Your task to perform on an android device: turn vacation reply on in the gmail app Image 0: 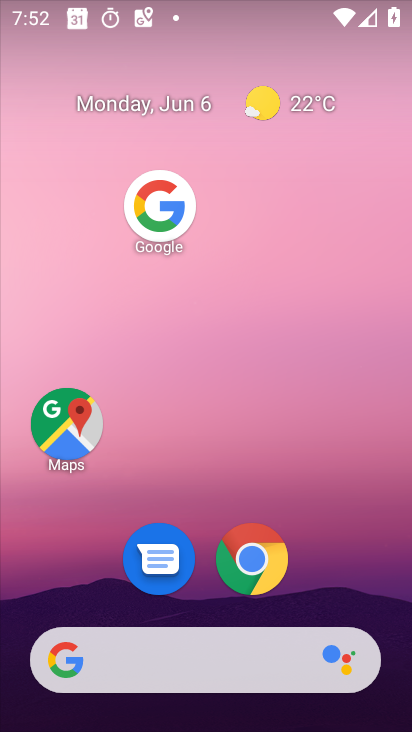
Step 0: drag from (199, 598) to (280, 228)
Your task to perform on an android device: turn vacation reply on in the gmail app Image 1: 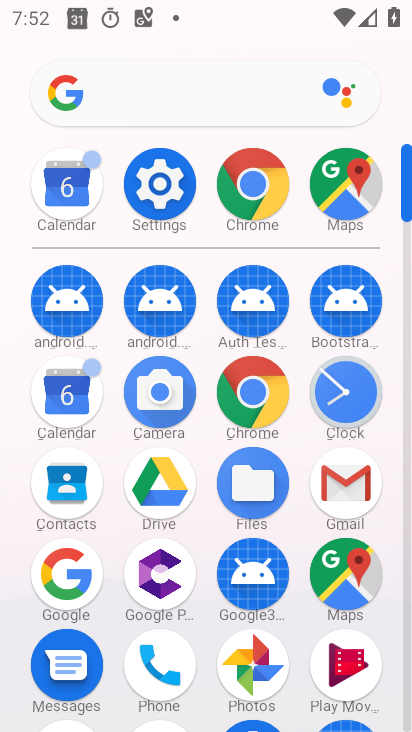
Step 1: click (341, 478)
Your task to perform on an android device: turn vacation reply on in the gmail app Image 2: 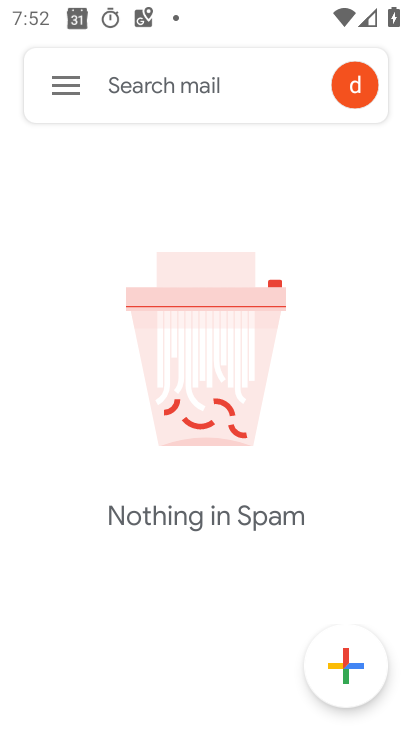
Step 2: click (59, 85)
Your task to perform on an android device: turn vacation reply on in the gmail app Image 3: 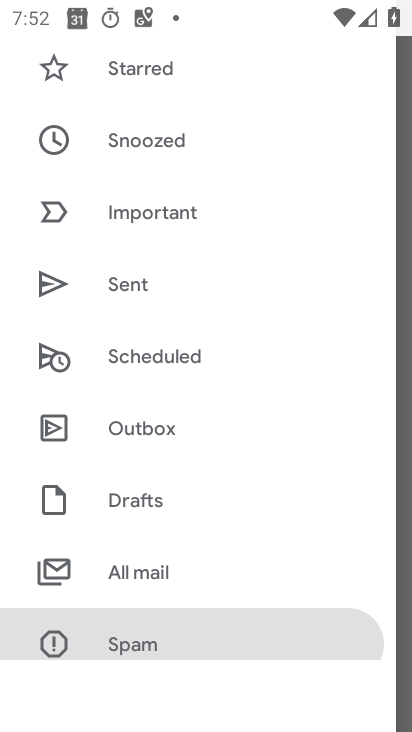
Step 3: drag from (184, 591) to (180, 93)
Your task to perform on an android device: turn vacation reply on in the gmail app Image 4: 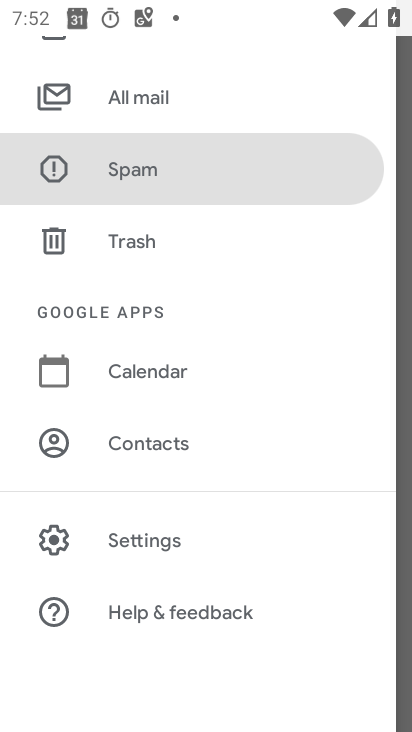
Step 4: click (132, 542)
Your task to perform on an android device: turn vacation reply on in the gmail app Image 5: 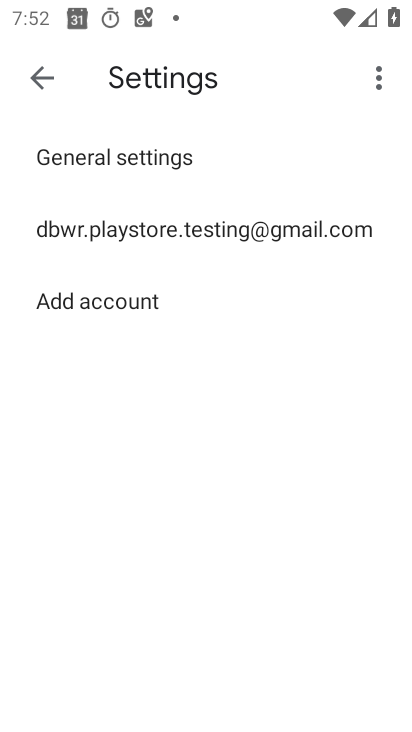
Step 5: click (118, 241)
Your task to perform on an android device: turn vacation reply on in the gmail app Image 6: 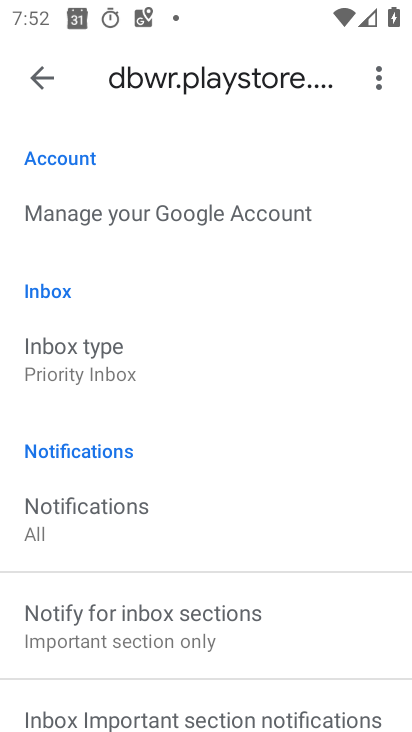
Step 6: drag from (193, 678) to (159, 375)
Your task to perform on an android device: turn vacation reply on in the gmail app Image 7: 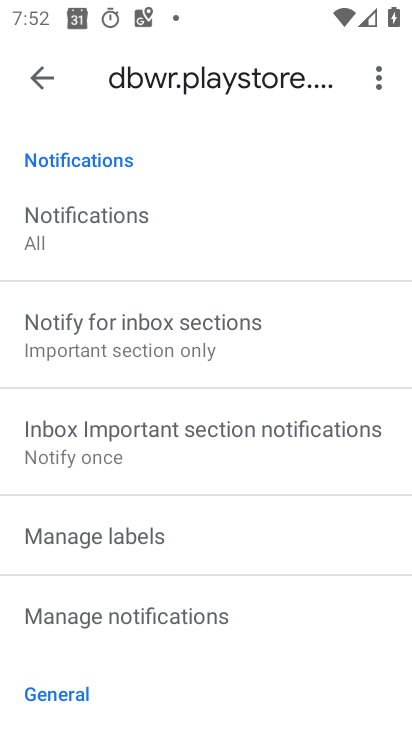
Step 7: drag from (122, 663) to (110, 403)
Your task to perform on an android device: turn vacation reply on in the gmail app Image 8: 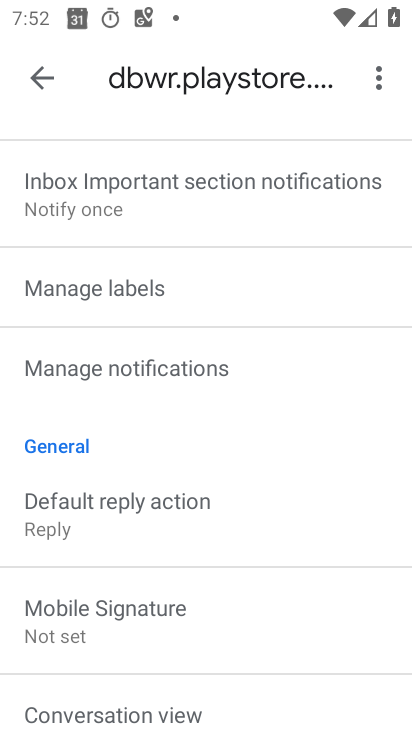
Step 8: drag from (151, 659) to (163, 429)
Your task to perform on an android device: turn vacation reply on in the gmail app Image 9: 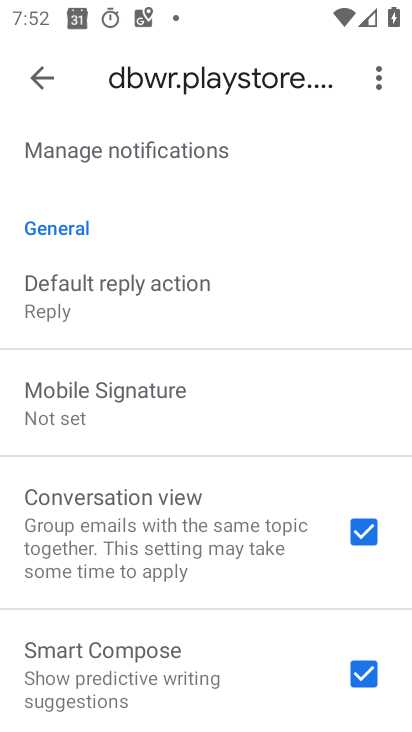
Step 9: drag from (261, 707) to (234, 495)
Your task to perform on an android device: turn vacation reply on in the gmail app Image 10: 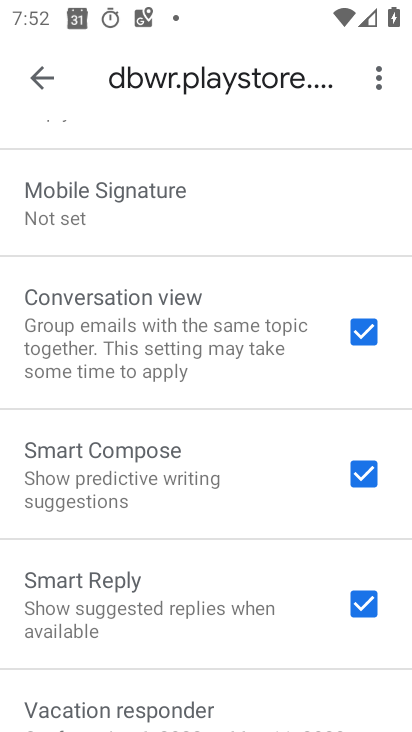
Step 10: drag from (264, 661) to (251, 554)
Your task to perform on an android device: turn vacation reply on in the gmail app Image 11: 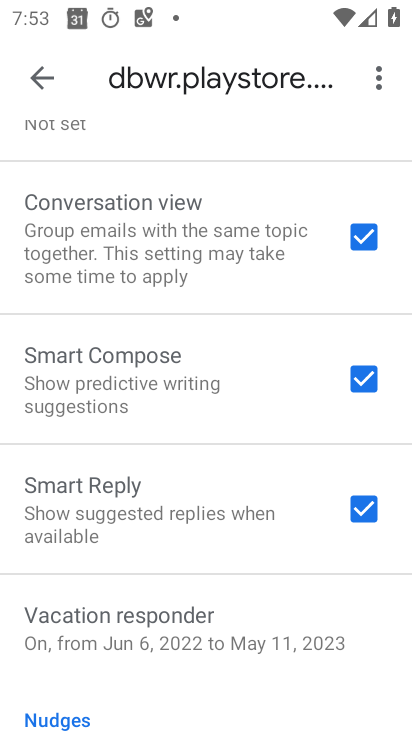
Step 11: drag from (152, 671) to (116, 488)
Your task to perform on an android device: turn vacation reply on in the gmail app Image 12: 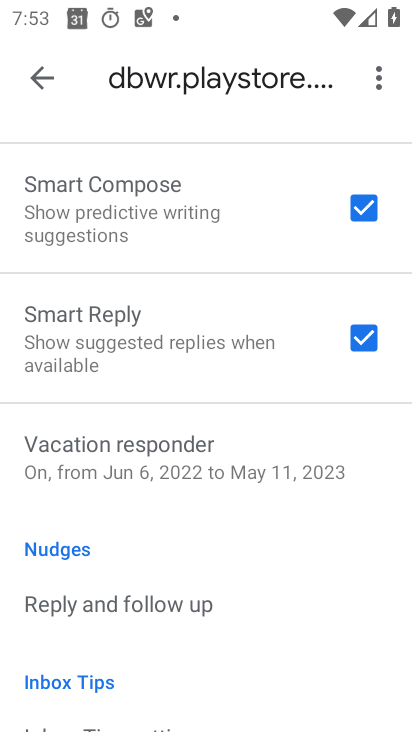
Step 12: click (130, 456)
Your task to perform on an android device: turn vacation reply on in the gmail app Image 13: 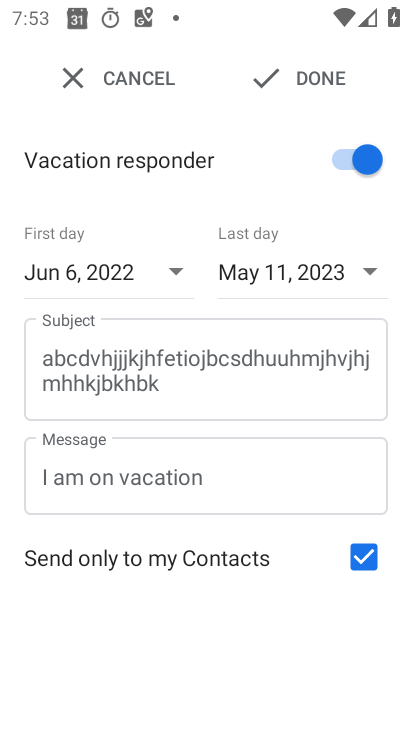
Step 13: task complete